Your task to perform on an android device: change the clock display to analog Image 0: 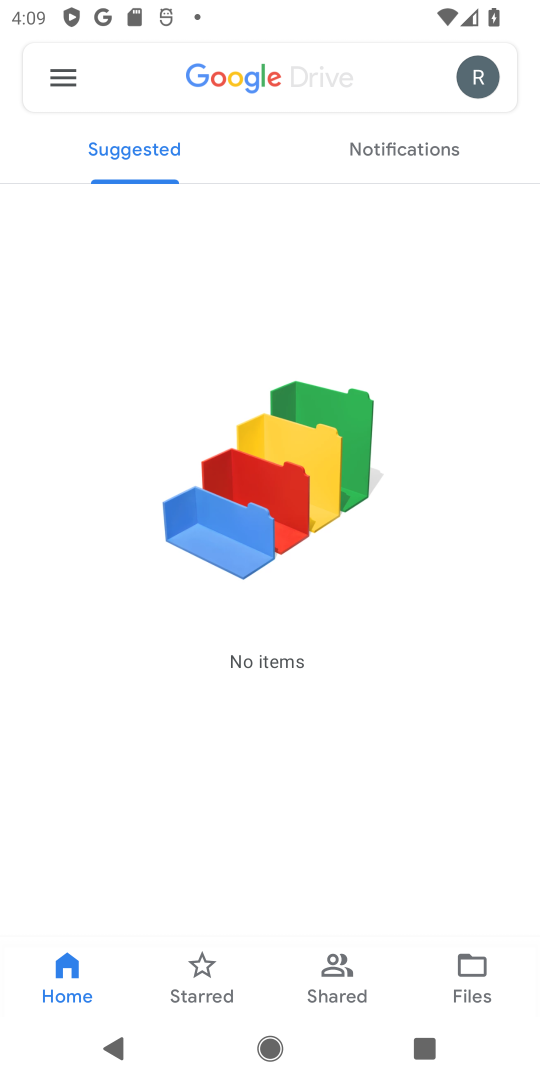
Step 0: press home button
Your task to perform on an android device: change the clock display to analog Image 1: 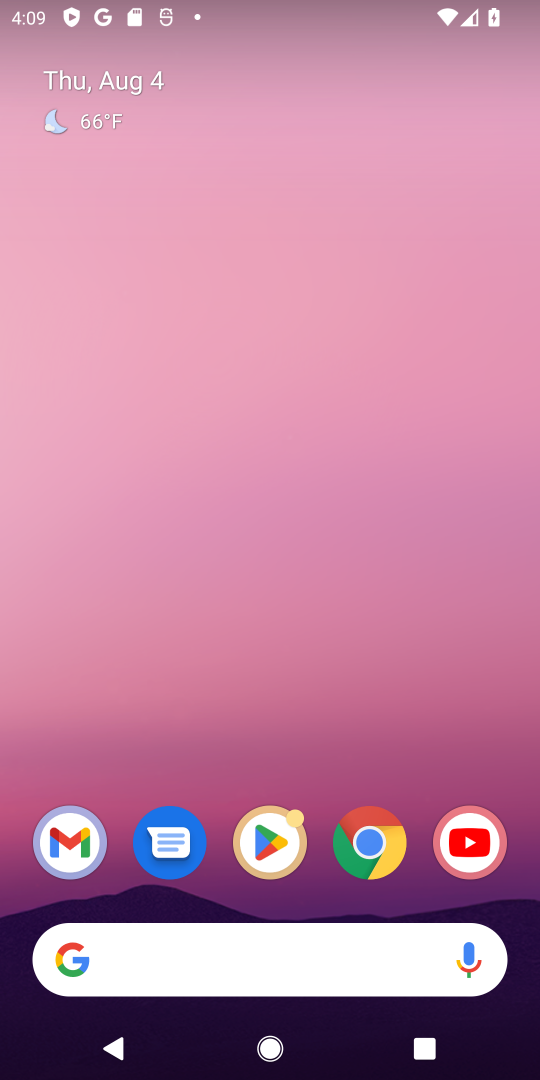
Step 1: drag from (279, 747) to (255, 106)
Your task to perform on an android device: change the clock display to analog Image 2: 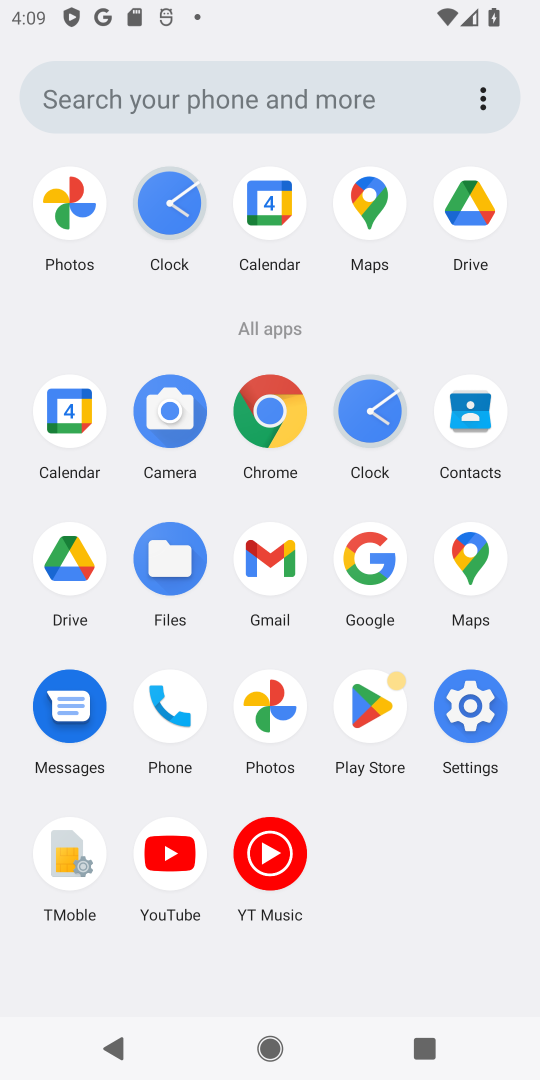
Step 2: click (173, 203)
Your task to perform on an android device: change the clock display to analog Image 3: 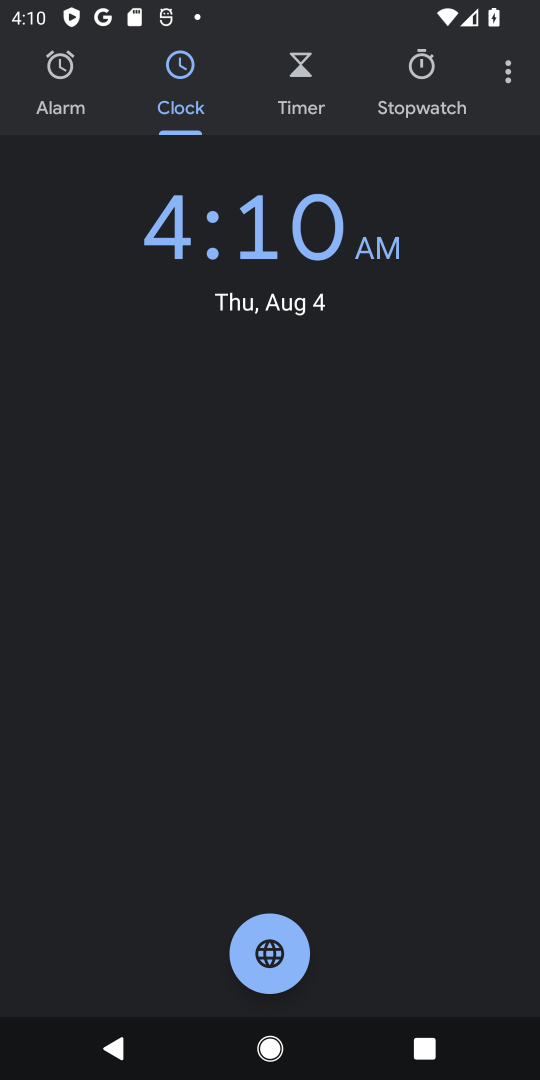
Step 3: click (534, 67)
Your task to perform on an android device: change the clock display to analog Image 4: 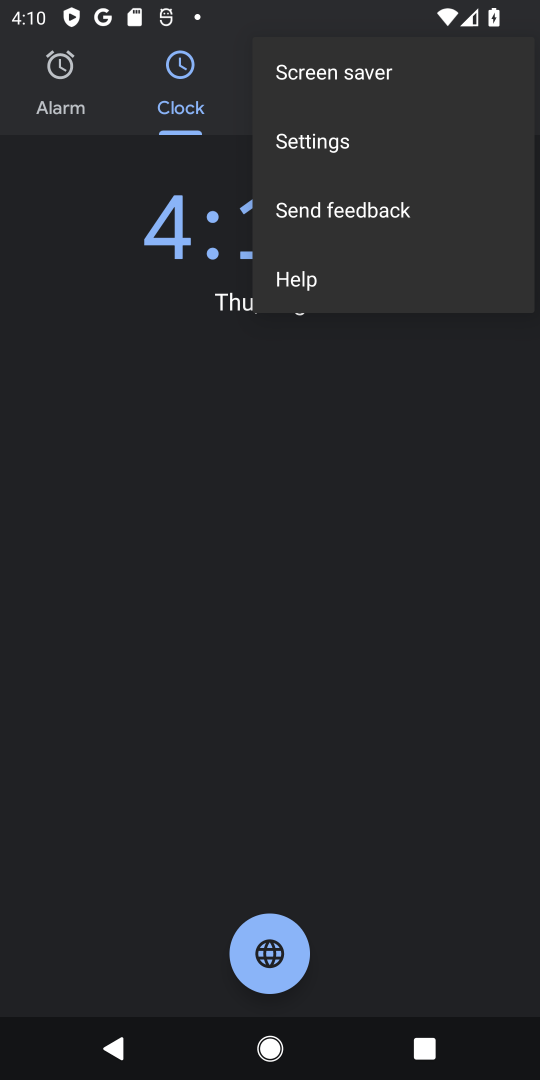
Step 4: click (374, 154)
Your task to perform on an android device: change the clock display to analog Image 5: 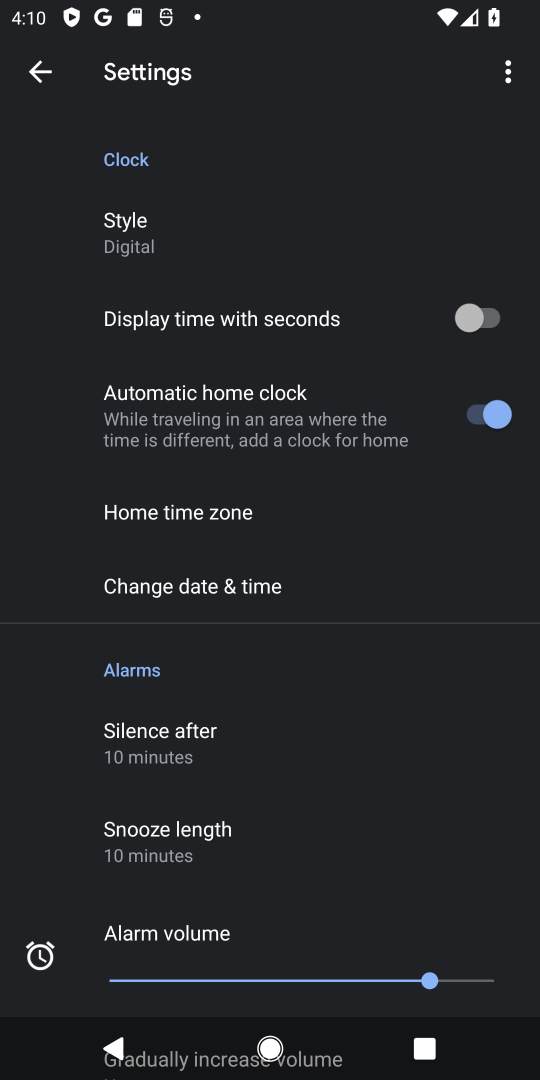
Step 5: click (173, 255)
Your task to perform on an android device: change the clock display to analog Image 6: 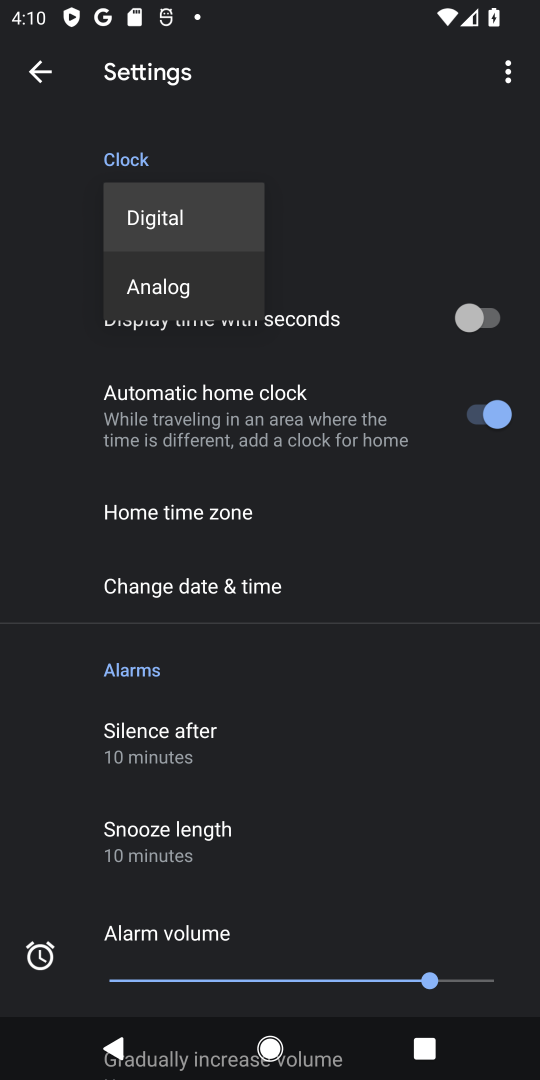
Step 6: click (187, 289)
Your task to perform on an android device: change the clock display to analog Image 7: 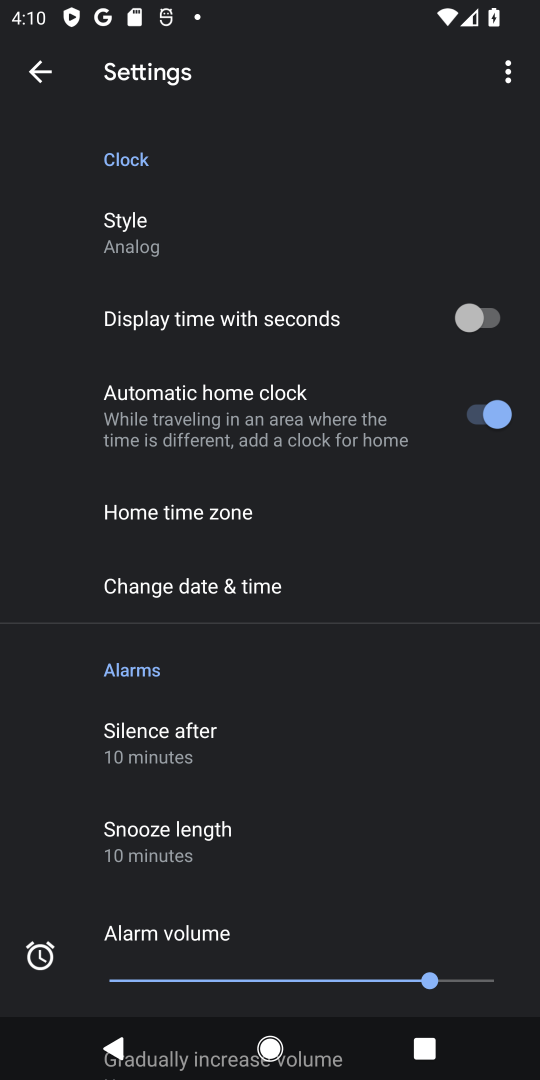
Step 7: task complete